Your task to perform on an android device: turn on showing notifications on the lock screen Image 0: 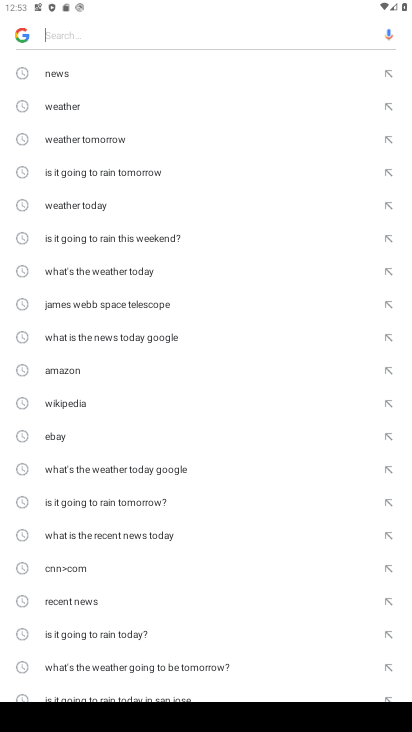
Step 0: press home button
Your task to perform on an android device: turn on showing notifications on the lock screen Image 1: 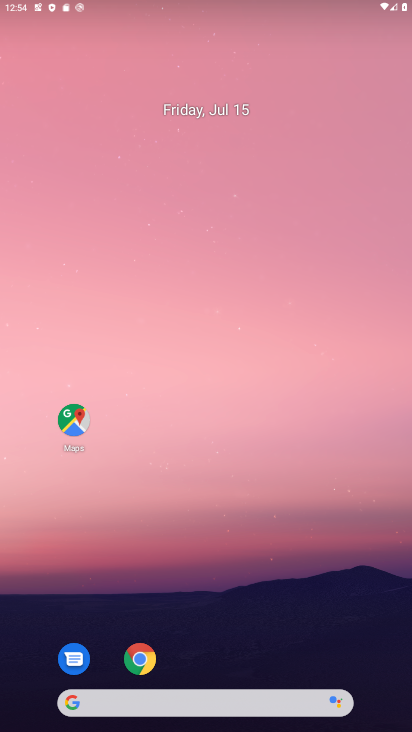
Step 1: drag from (207, 631) to (204, 275)
Your task to perform on an android device: turn on showing notifications on the lock screen Image 2: 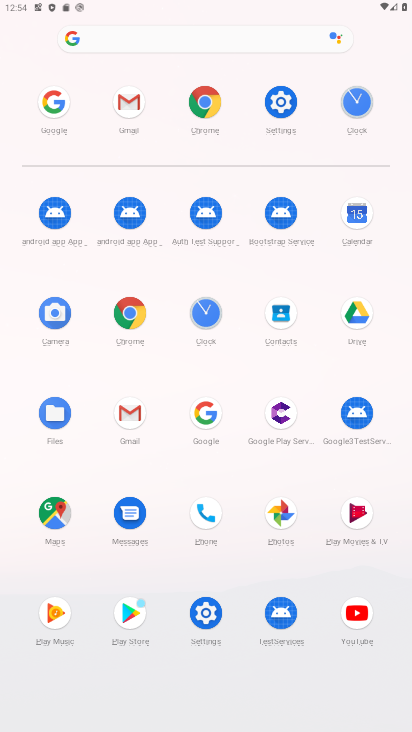
Step 2: click (267, 106)
Your task to perform on an android device: turn on showing notifications on the lock screen Image 3: 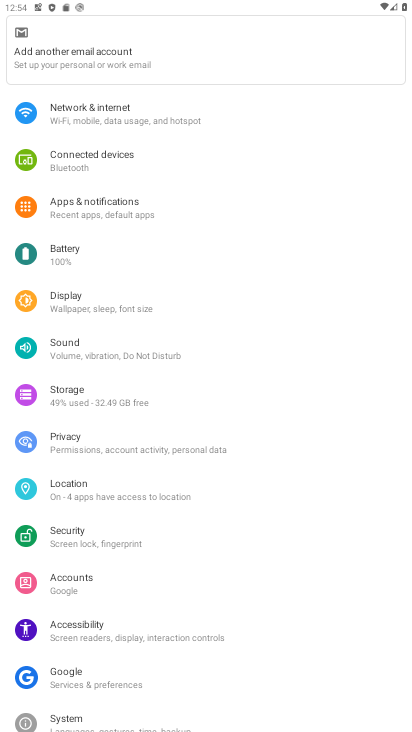
Step 3: click (131, 215)
Your task to perform on an android device: turn on showing notifications on the lock screen Image 4: 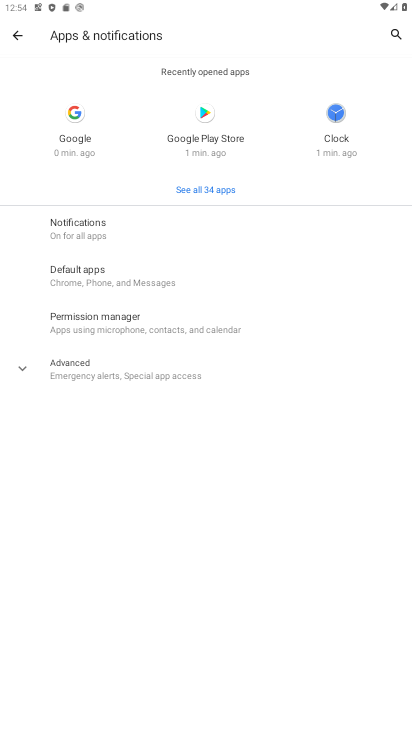
Step 4: click (106, 242)
Your task to perform on an android device: turn on showing notifications on the lock screen Image 5: 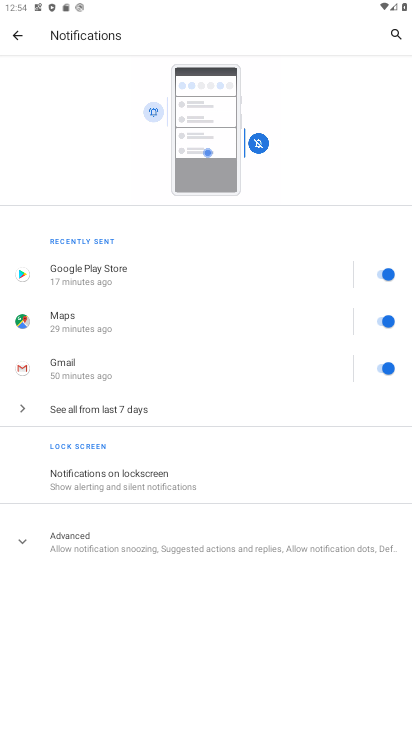
Step 5: click (154, 468)
Your task to perform on an android device: turn on showing notifications on the lock screen Image 6: 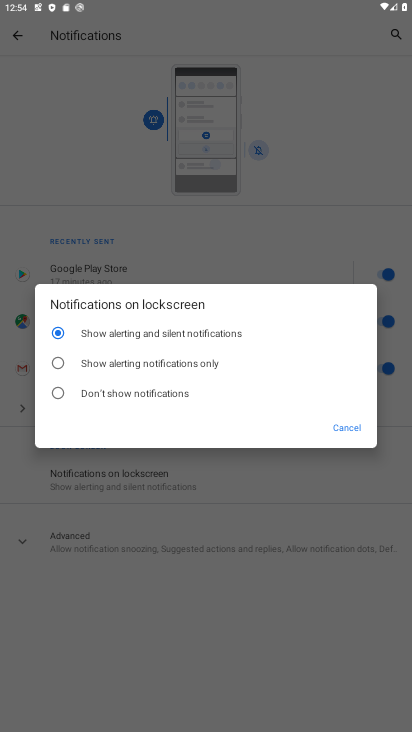
Step 6: task complete